Your task to perform on an android device: Open my contact list Image 0: 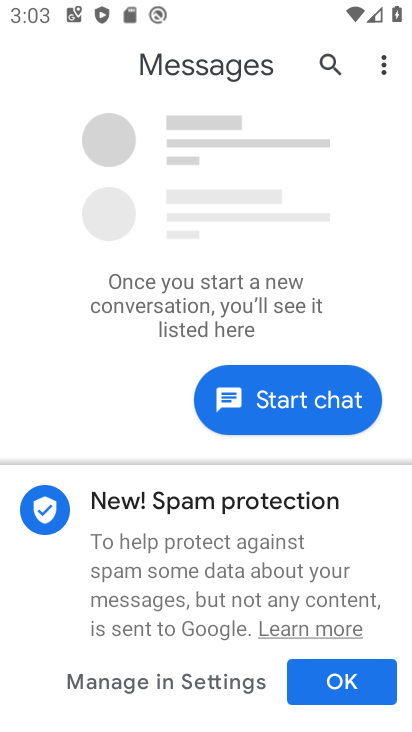
Step 0: press back button
Your task to perform on an android device: Open my contact list Image 1: 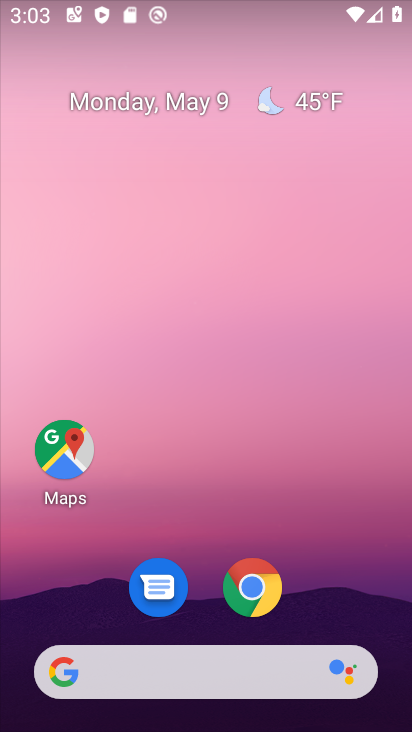
Step 1: drag from (222, 647) to (294, 225)
Your task to perform on an android device: Open my contact list Image 2: 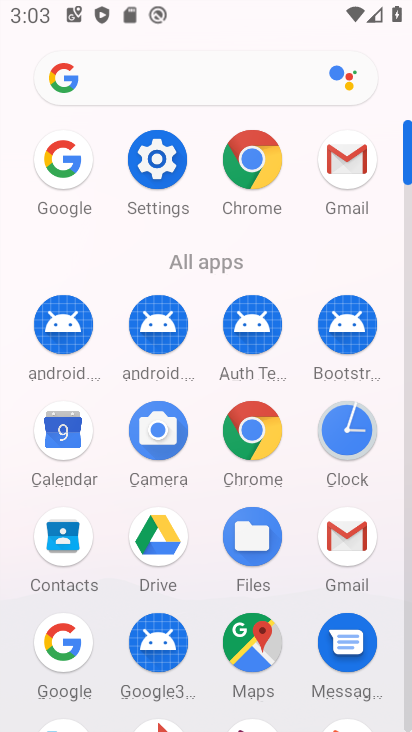
Step 2: click (83, 560)
Your task to perform on an android device: Open my contact list Image 3: 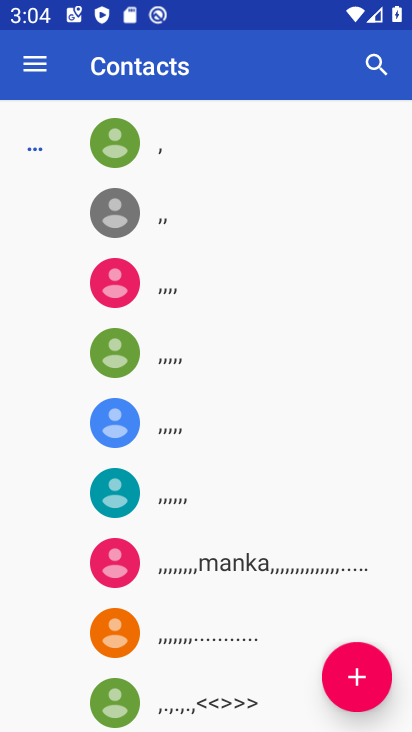
Step 3: task complete